Your task to perform on an android device: Go to network settings Image 0: 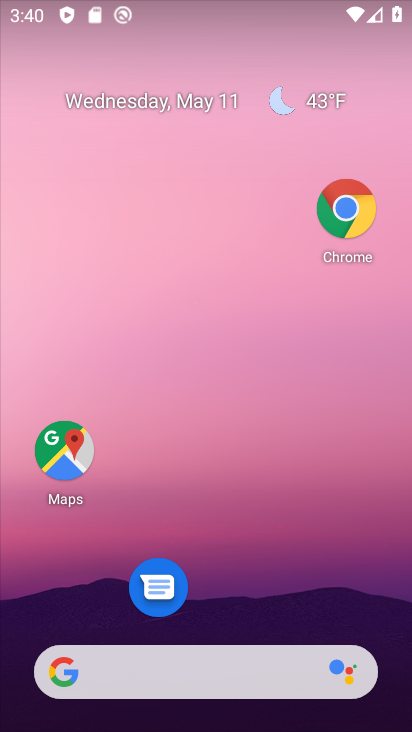
Step 0: drag from (282, 563) to (212, 24)
Your task to perform on an android device: Go to network settings Image 1: 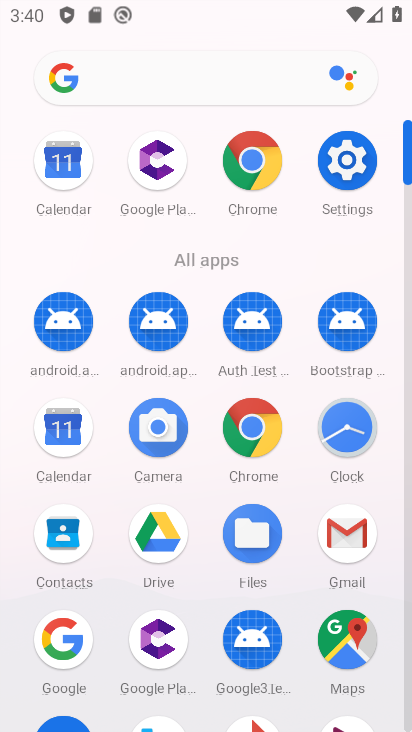
Step 1: click (330, 168)
Your task to perform on an android device: Go to network settings Image 2: 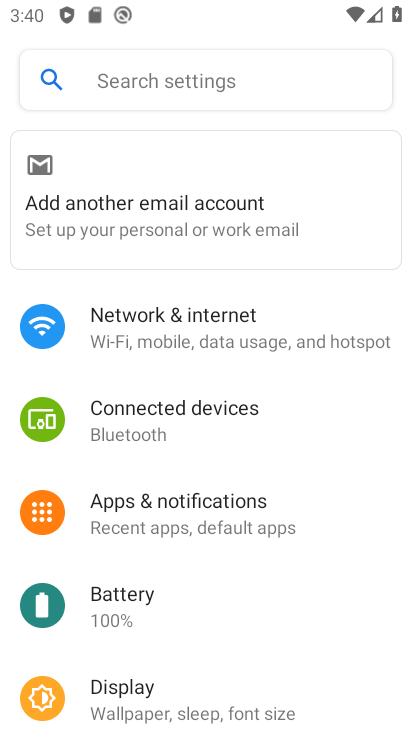
Step 2: click (265, 342)
Your task to perform on an android device: Go to network settings Image 3: 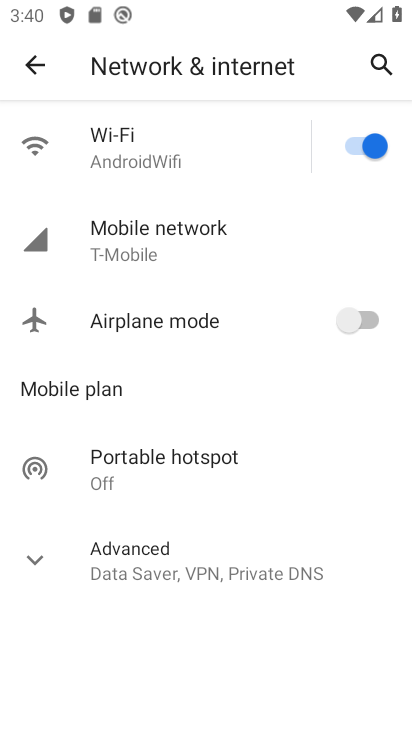
Step 3: task complete